Your task to perform on an android device: set an alarm Image 0: 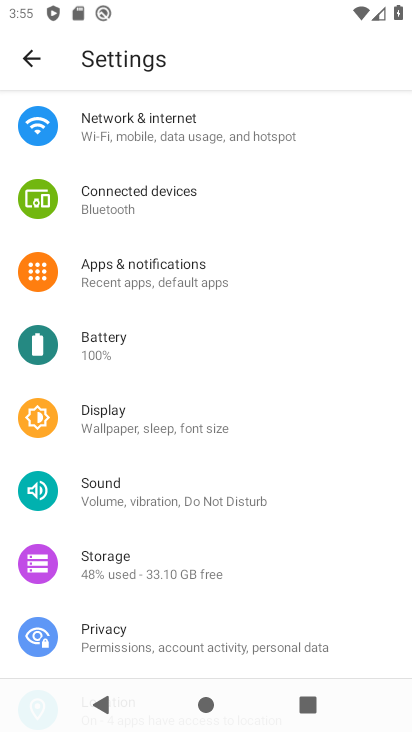
Step 0: press home button
Your task to perform on an android device: set an alarm Image 1: 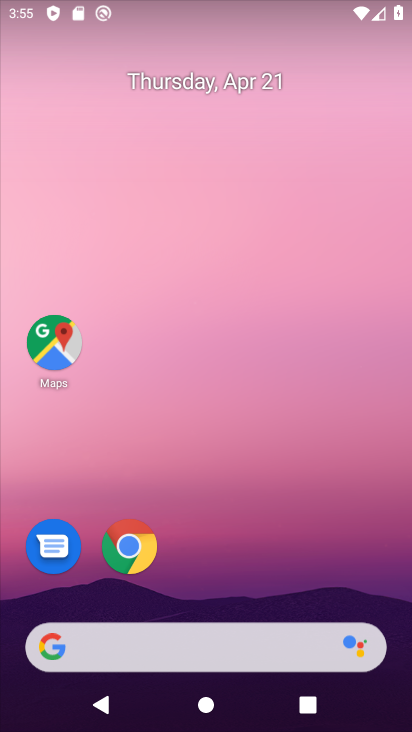
Step 1: click (247, 0)
Your task to perform on an android device: set an alarm Image 2: 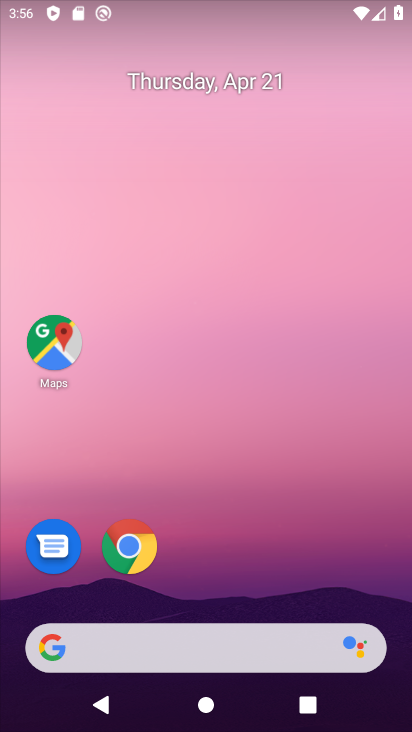
Step 2: drag from (228, 417) to (238, 115)
Your task to perform on an android device: set an alarm Image 3: 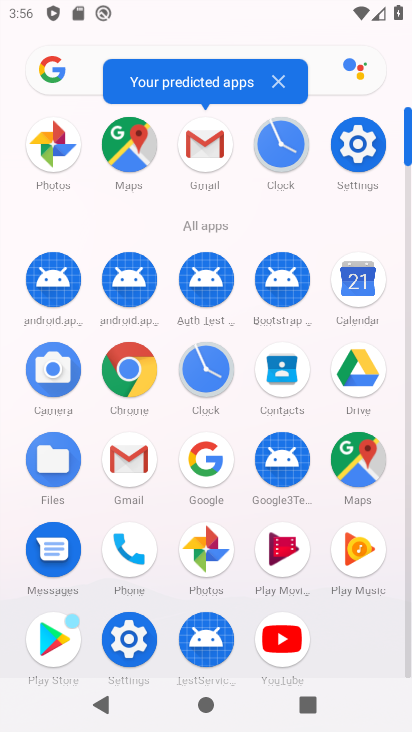
Step 3: click (278, 149)
Your task to perform on an android device: set an alarm Image 4: 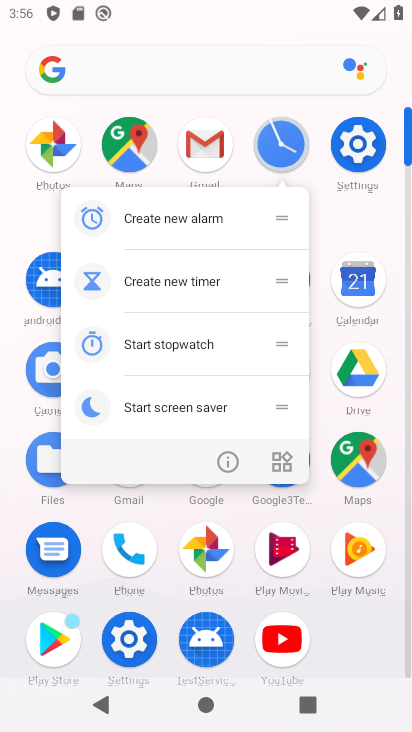
Step 4: click (281, 146)
Your task to perform on an android device: set an alarm Image 5: 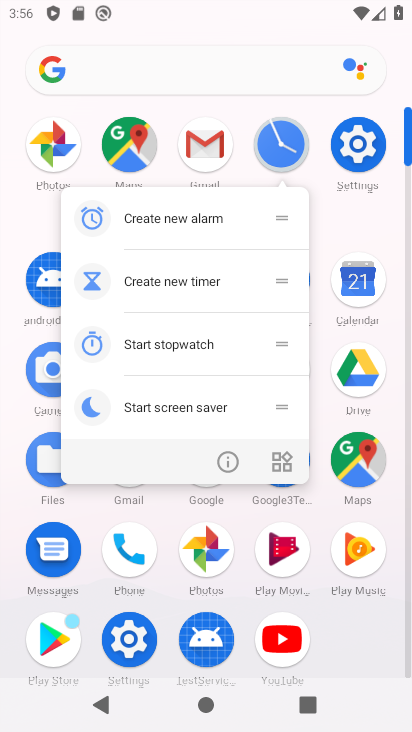
Step 5: click (284, 153)
Your task to perform on an android device: set an alarm Image 6: 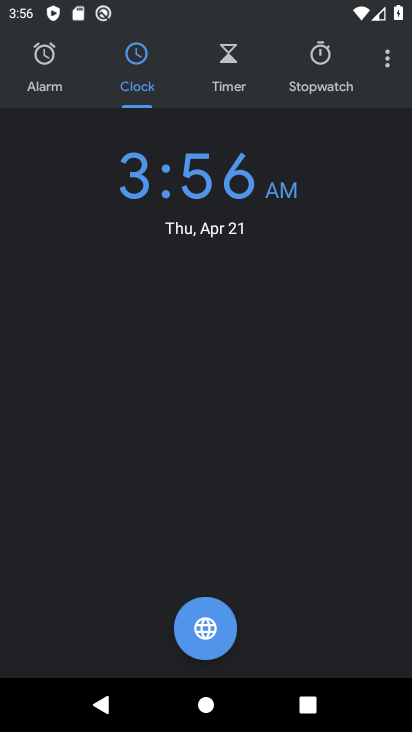
Step 6: click (53, 74)
Your task to perform on an android device: set an alarm Image 7: 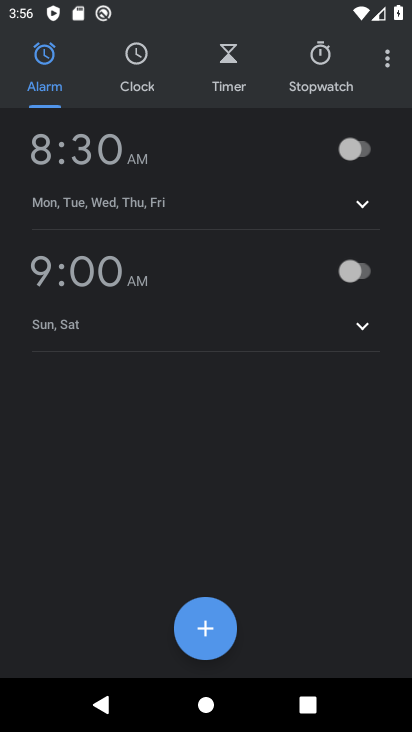
Step 7: click (187, 643)
Your task to perform on an android device: set an alarm Image 8: 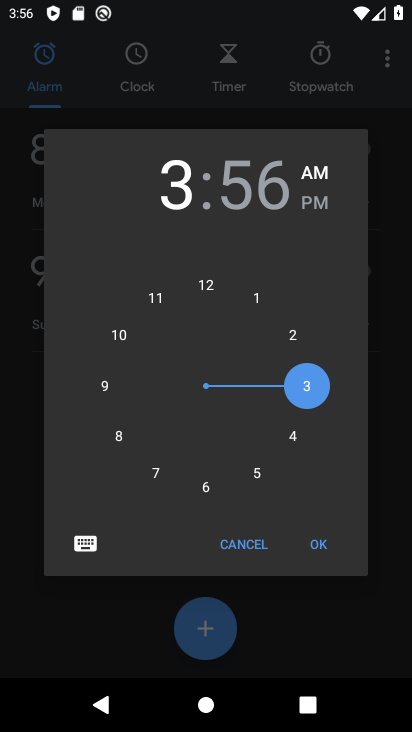
Step 8: click (310, 541)
Your task to perform on an android device: set an alarm Image 9: 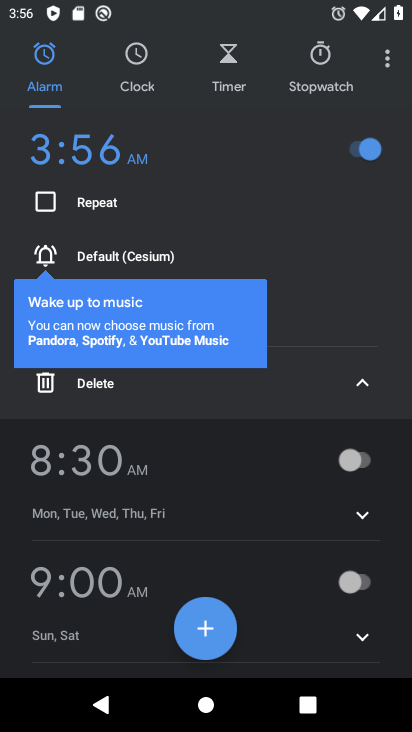
Step 9: task complete